Your task to perform on an android device: toggle javascript in the chrome app Image 0: 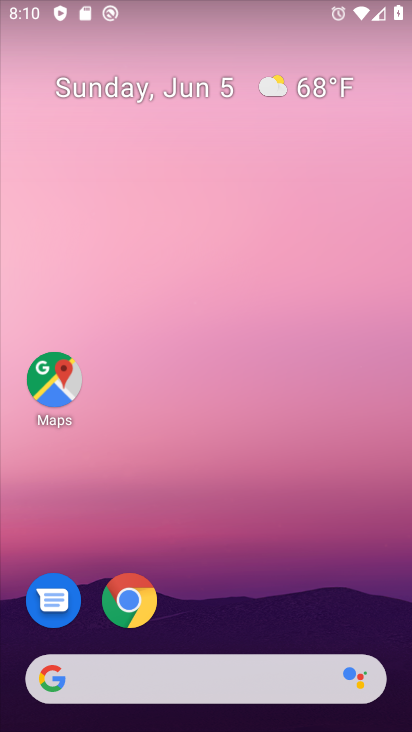
Step 0: drag from (326, 610) to (276, 47)
Your task to perform on an android device: toggle javascript in the chrome app Image 1: 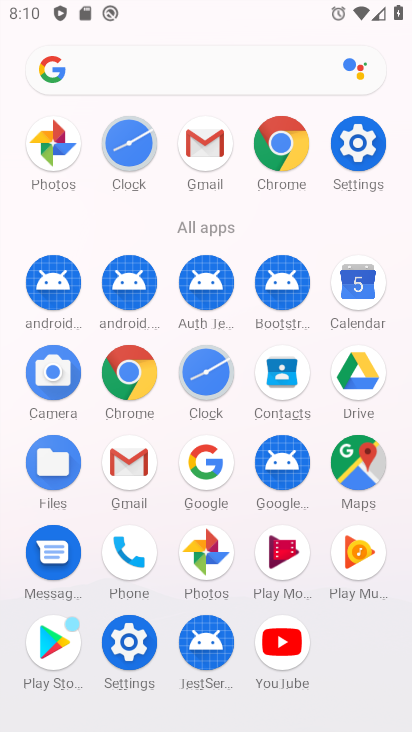
Step 1: click (277, 166)
Your task to perform on an android device: toggle javascript in the chrome app Image 2: 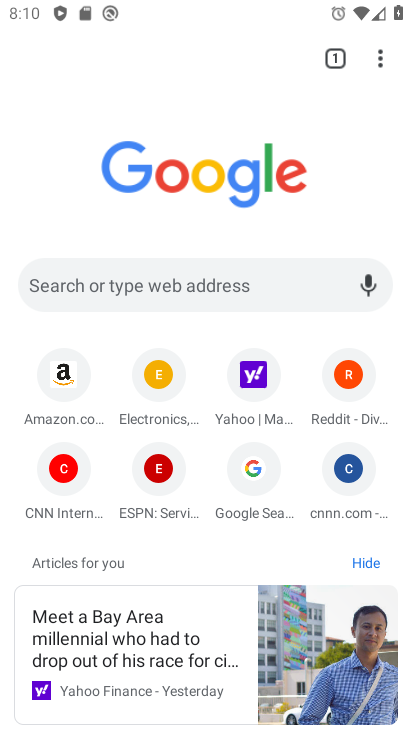
Step 2: click (381, 53)
Your task to perform on an android device: toggle javascript in the chrome app Image 3: 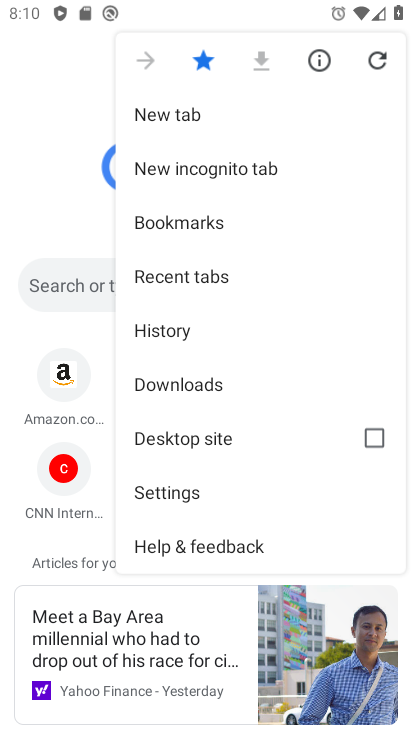
Step 3: click (194, 495)
Your task to perform on an android device: toggle javascript in the chrome app Image 4: 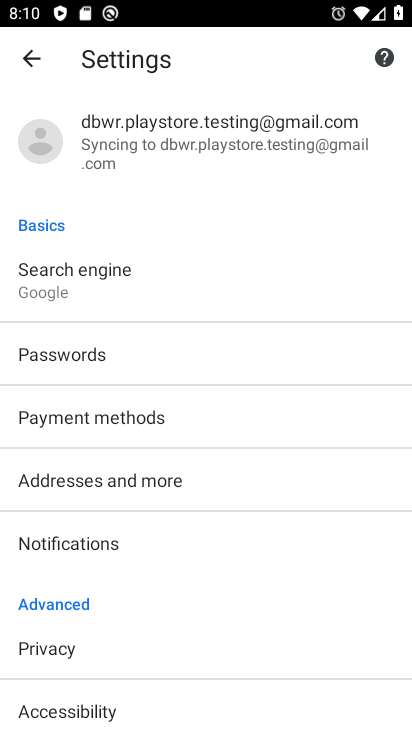
Step 4: drag from (105, 709) to (103, 299)
Your task to perform on an android device: toggle javascript in the chrome app Image 5: 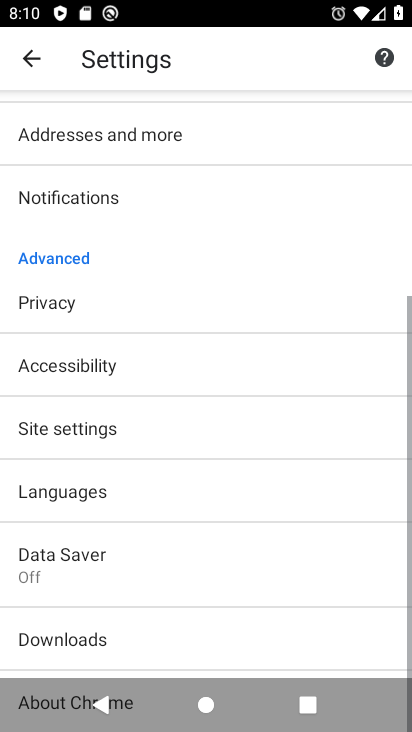
Step 5: click (66, 439)
Your task to perform on an android device: toggle javascript in the chrome app Image 6: 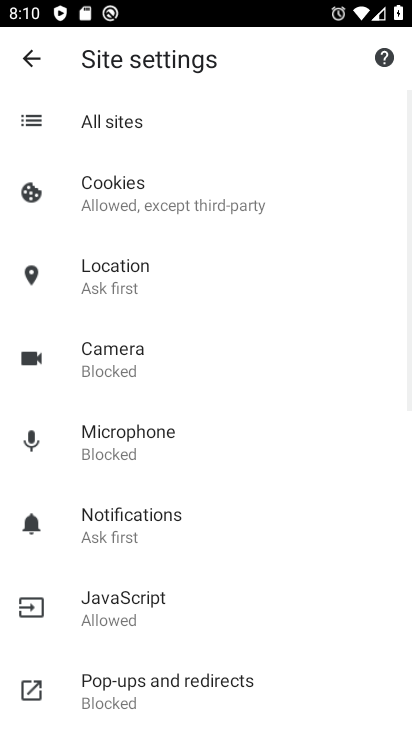
Step 6: click (159, 604)
Your task to perform on an android device: toggle javascript in the chrome app Image 7: 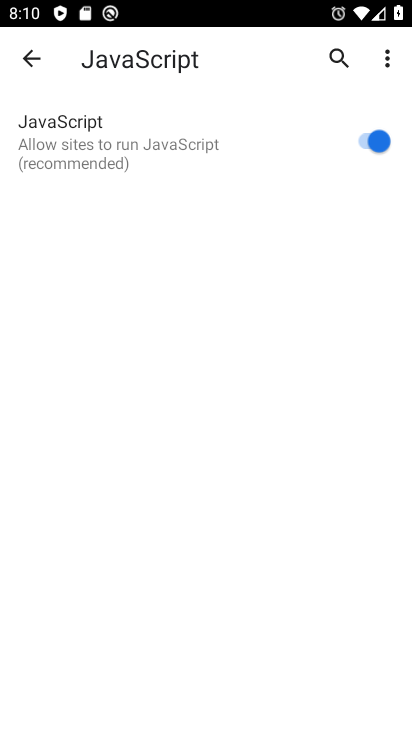
Step 7: click (346, 151)
Your task to perform on an android device: toggle javascript in the chrome app Image 8: 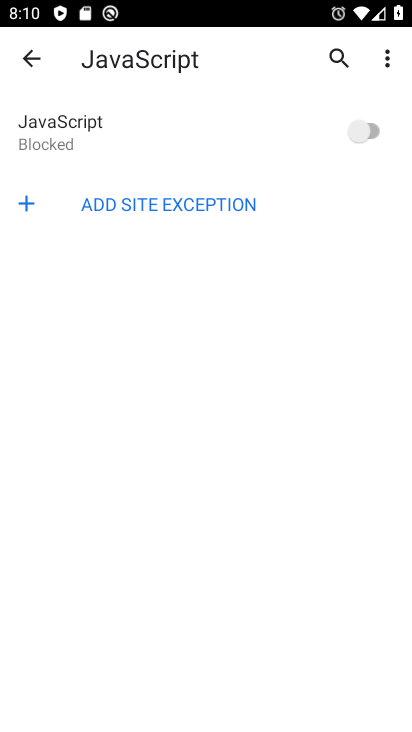
Step 8: task complete